Your task to perform on an android device: Check the news Image 0: 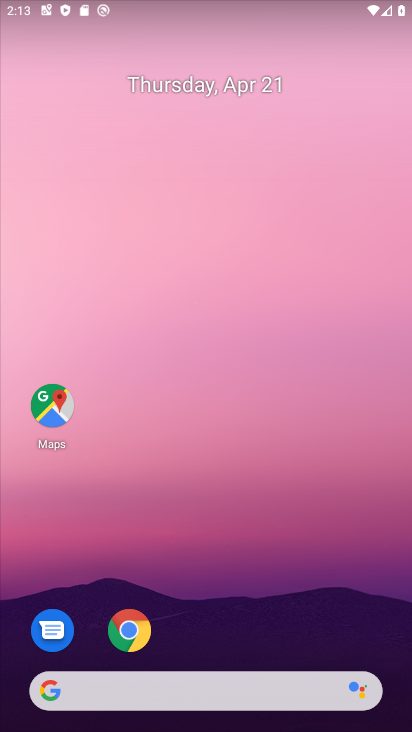
Step 0: drag from (13, 279) to (389, 293)
Your task to perform on an android device: Check the news Image 1: 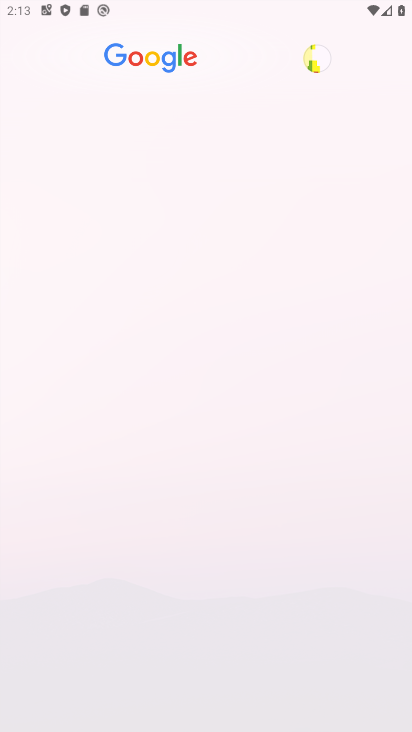
Step 1: task complete